Your task to perform on an android device: turn off notifications in google photos Image 0: 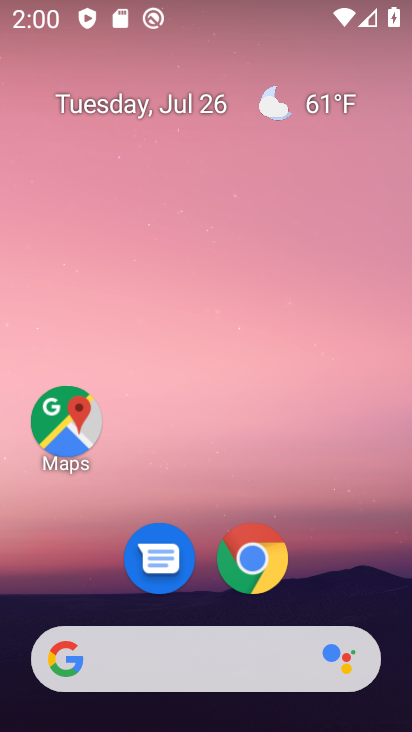
Step 0: drag from (132, 524) to (248, 17)
Your task to perform on an android device: turn off notifications in google photos Image 1: 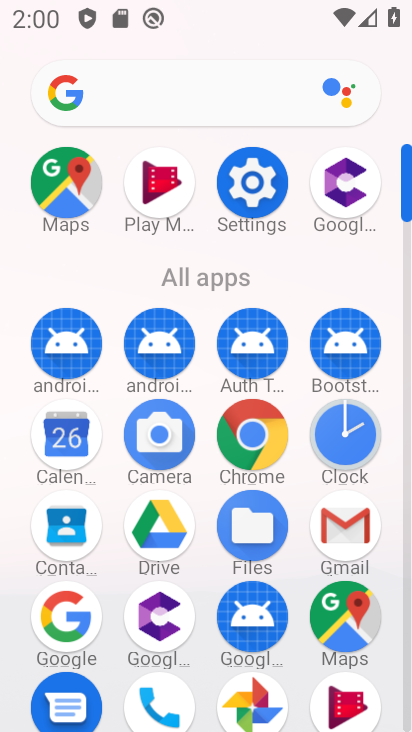
Step 1: click (241, 704)
Your task to perform on an android device: turn off notifications in google photos Image 2: 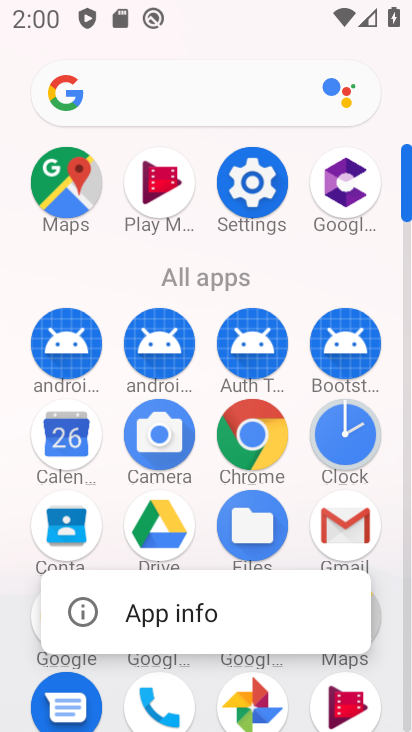
Step 2: click (81, 610)
Your task to perform on an android device: turn off notifications in google photos Image 3: 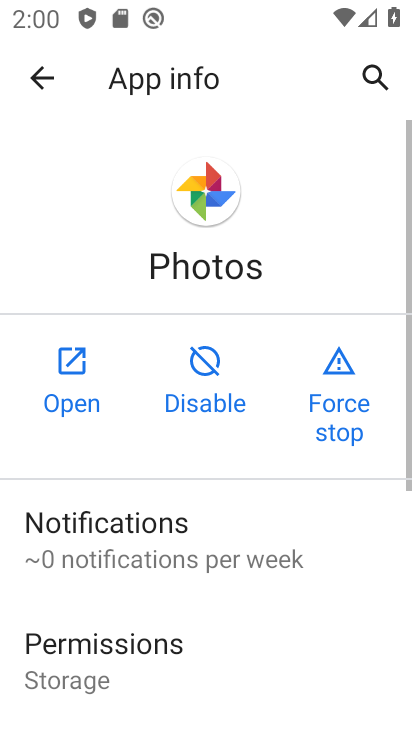
Step 3: click (126, 540)
Your task to perform on an android device: turn off notifications in google photos Image 4: 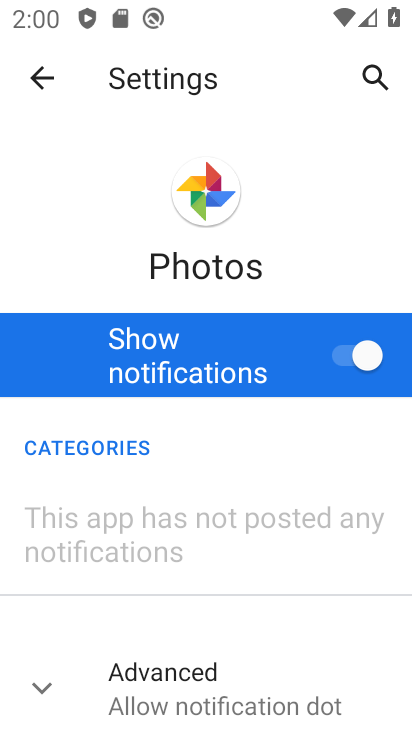
Step 4: click (360, 356)
Your task to perform on an android device: turn off notifications in google photos Image 5: 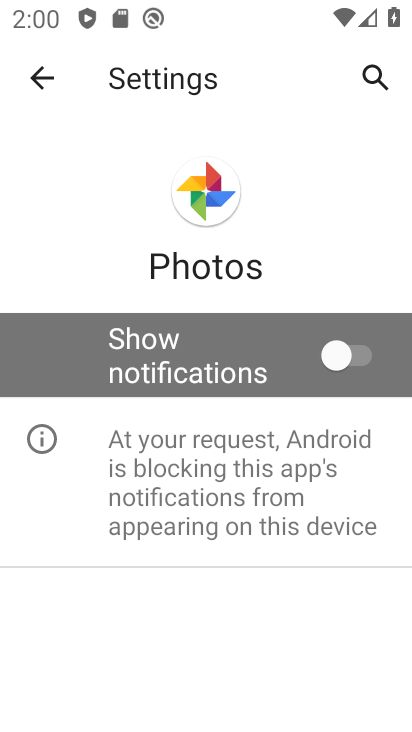
Step 5: task complete